Your task to perform on an android device: check battery use Image 0: 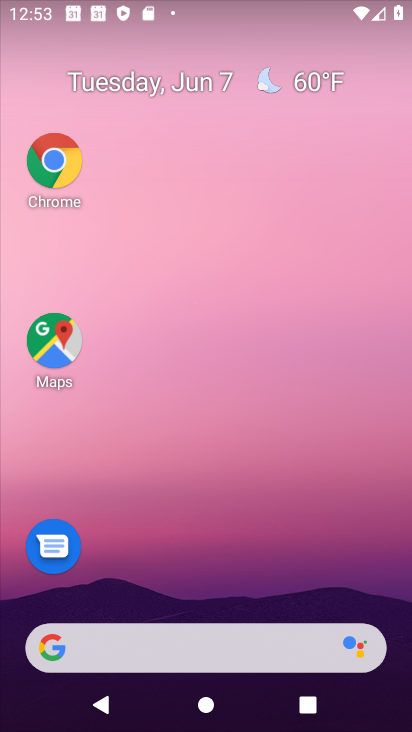
Step 0: drag from (202, 528) to (255, 91)
Your task to perform on an android device: check battery use Image 1: 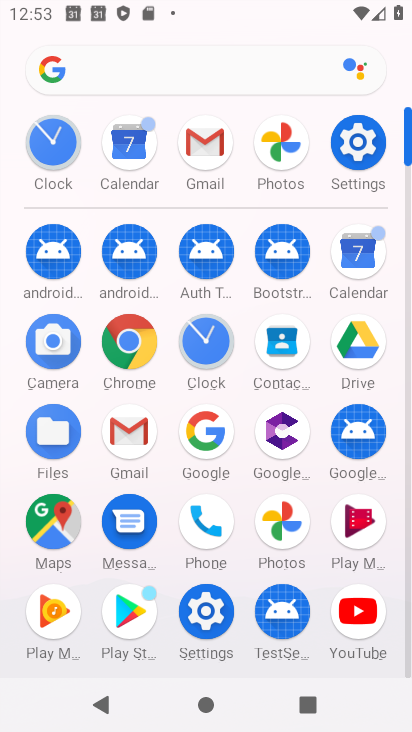
Step 1: click (372, 132)
Your task to perform on an android device: check battery use Image 2: 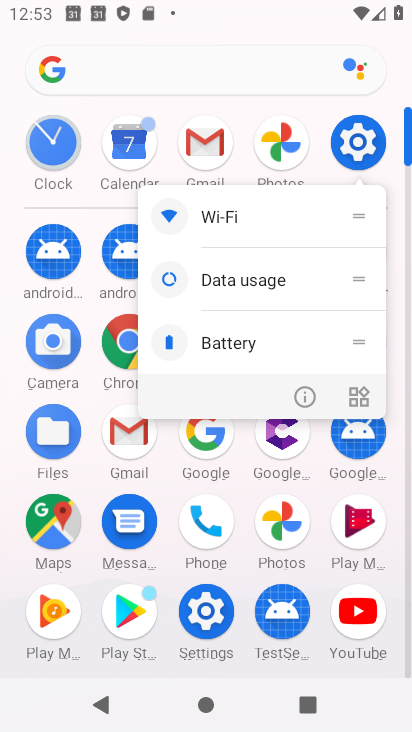
Step 2: click (303, 403)
Your task to perform on an android device: check battery use Image 3: 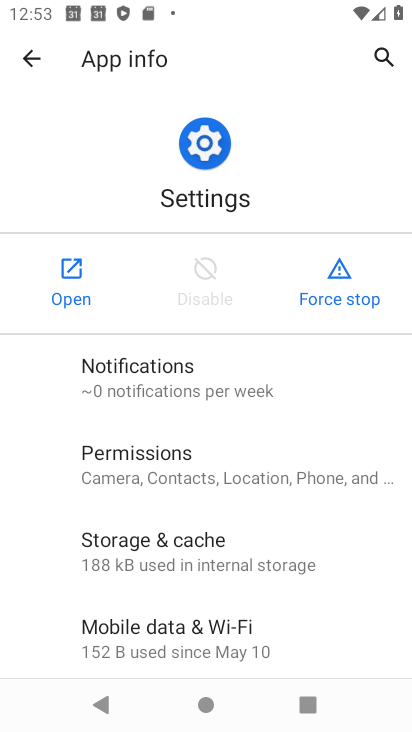
Step 3: click (64, 285)
Your task to perform on an android device: check battery use Image 4: 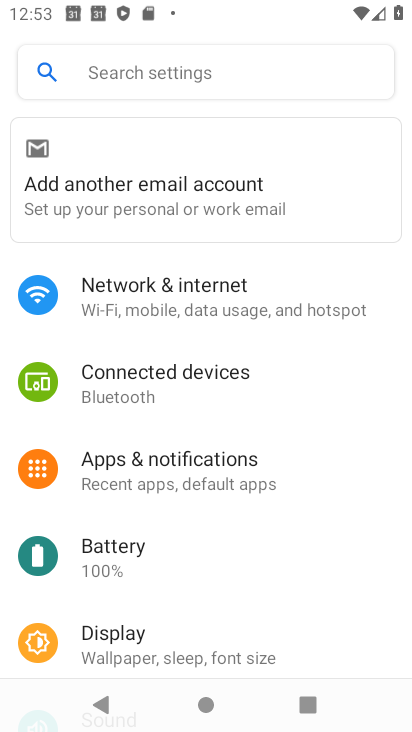
Step 4: click (124, 539)
Your task to perform on an android device: check battery use Image 5: 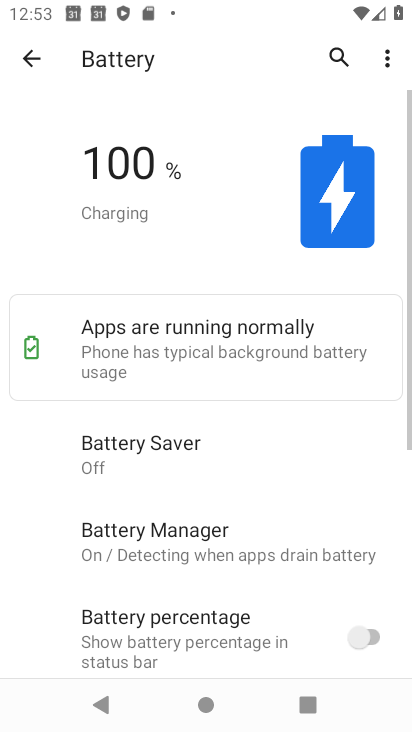
Step 5: click (388, 62)
Your task to perform on an android device: check battery use Image 6: 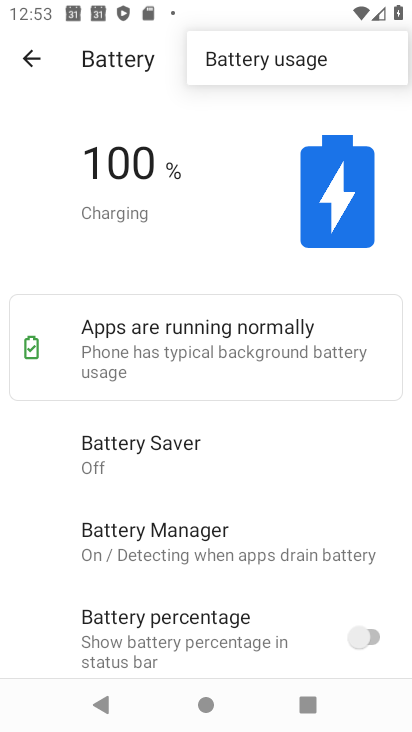
Step 6: click (264, 51)
Your task to perform on an android device: check battery use Image 7: 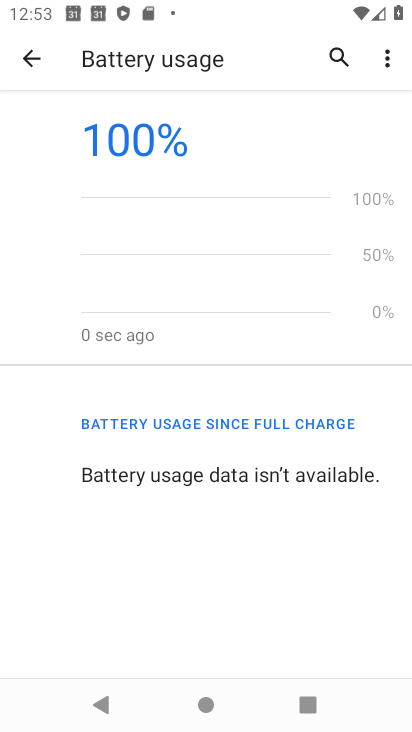
Step 7: task complete